Your task to perform on an android device: delete the emails in spam in the gmail app Image 0: 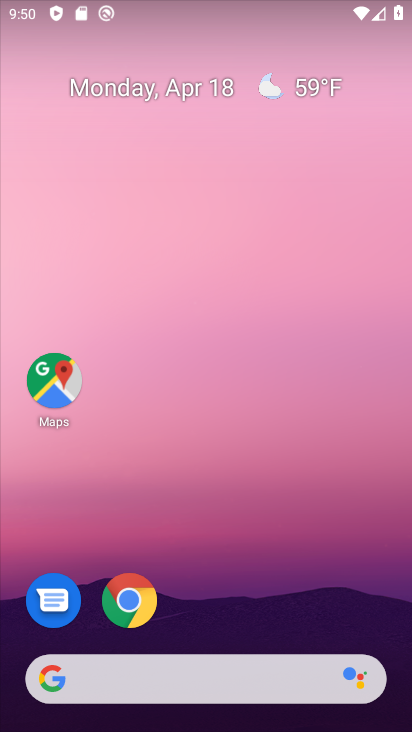
Step 0: drag from (234, 547) to (176, 0)
Your task to perform on an android device: delete the emails in spam in the gmail app Image 1: 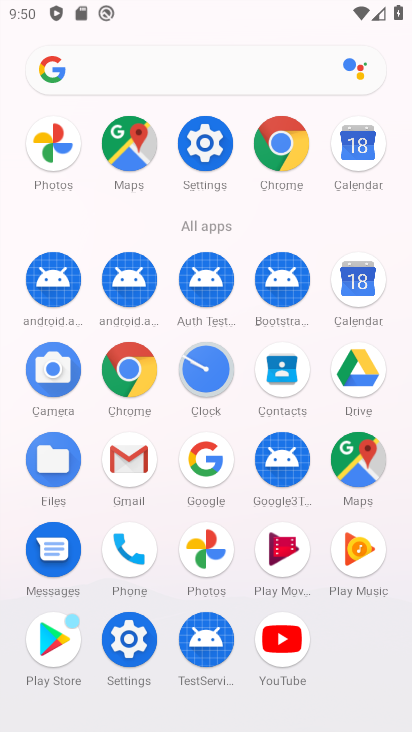
Step 1: click (125, 459)
Your task to perform on an android device: delete the emails in spam in the gmail app Image 2: 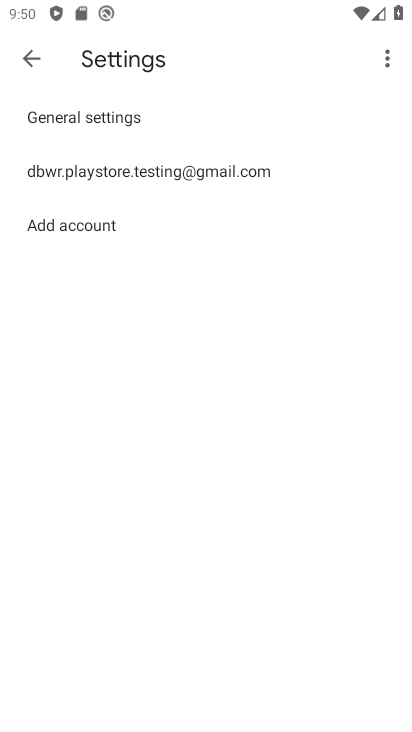
Step 2: click (31, 54)
Your task to perform on an android device: delete the emails in spam in the gmail app Image 3: 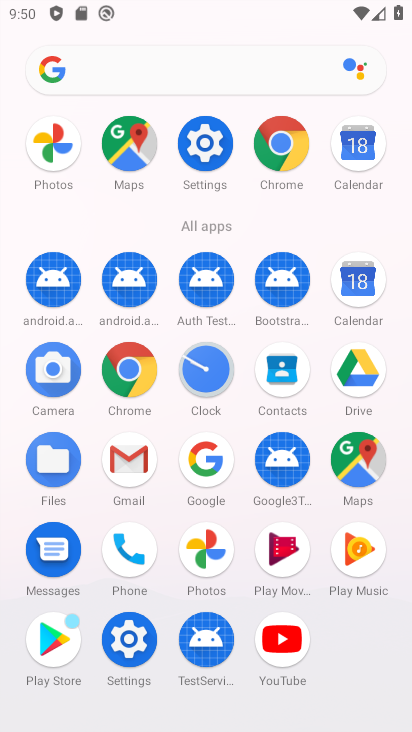
Step 3: click (123, 454)
Your task to perform on an android device: delete the emails in spam in the gmail app Image 4: 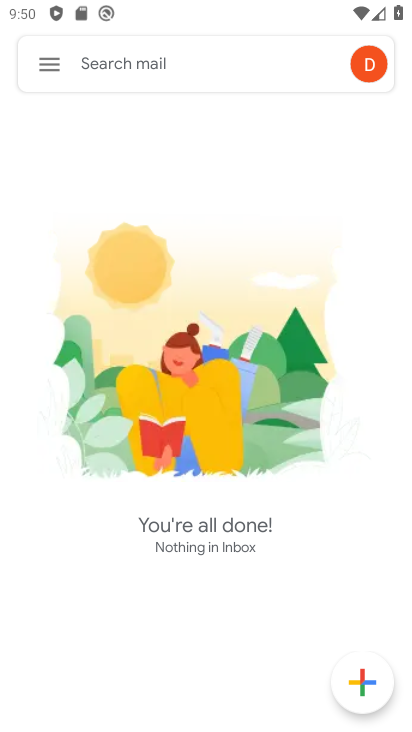
Step 4: click (41, 63)
Your task to perform on an android device: delete the emails in spam in the gmail app Image 5: 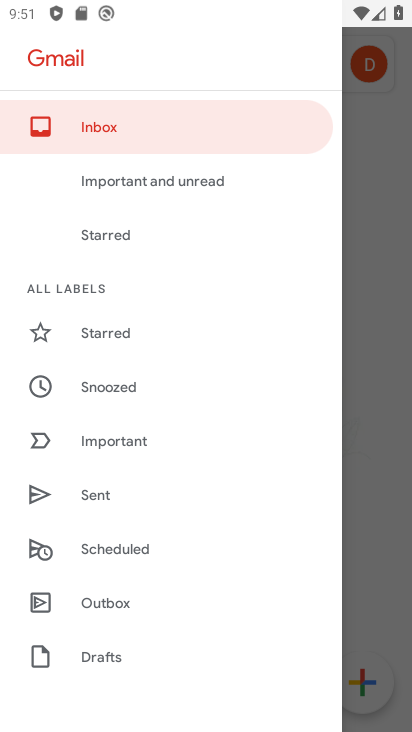
Step 5: drag from (188, 569) to (199, 202)
Your task to perform on an android device: delete the emails in spam in the gmail app Image 6: 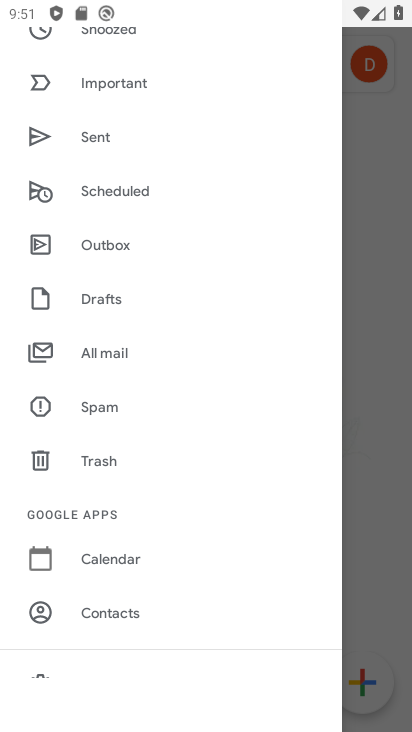
Step 6: click (101, 399)
Your task to perform on an android device: delete the emails in spam in the gmail app Image 7: 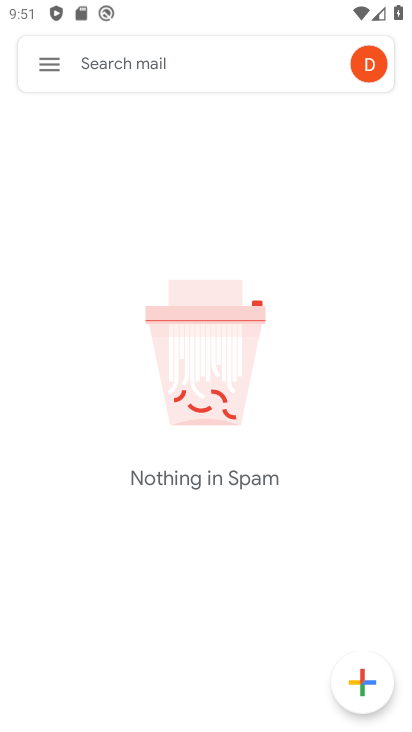
Step 7: task complete